Your task to perform on an android device: allow cookies in the chrome app Image 0: 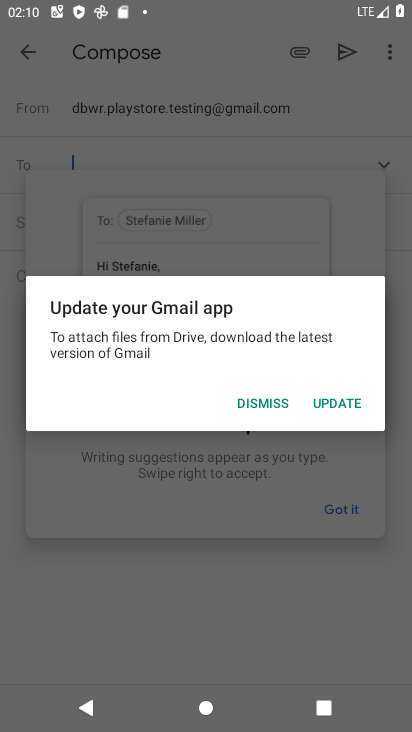
Step 0: press home button
Your task to perform on an android device: allow cookies in the chrome app Image 1: 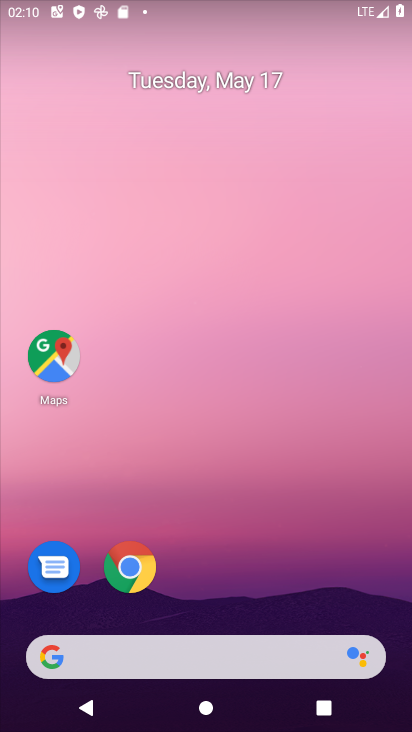
Step 1: click (129, 569)
Your task to perform on an android device: allow cookies in the chrome app Image 2: 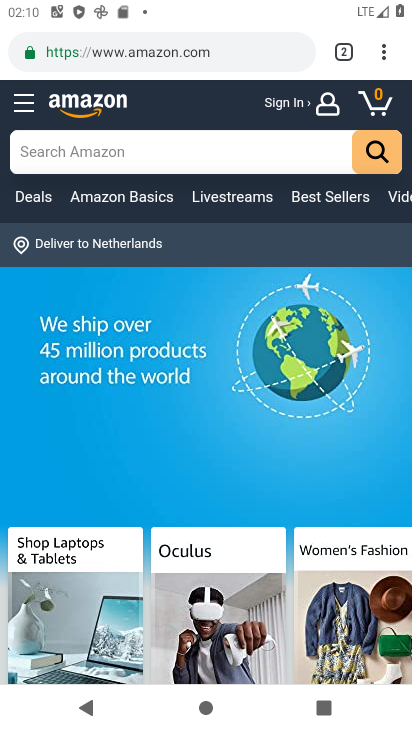
Step 2: click (385, 56)
Your task to perform on an android device: allow cookies in the chrome app Image 3: 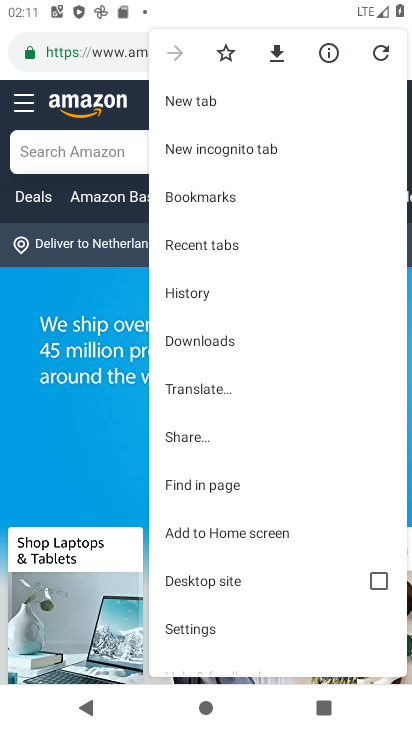
Step 3: click (200, 634)
Your task to perform on an android device: allow cookies in the chrome app Image 4: 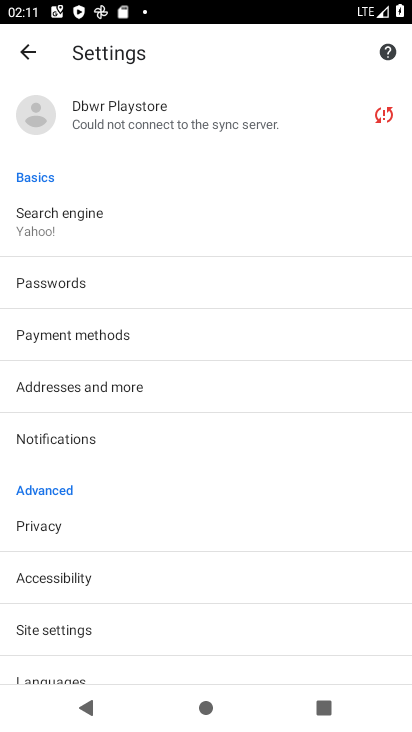
Step 4: click (65, 622)
Your task to perform on an android device: allow cookies in the chrome app Image 5: 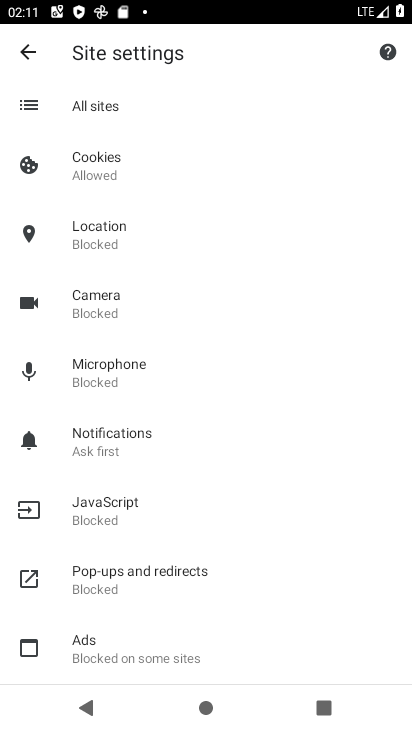
Step 5: click (91, 160)
Your task to perform on an android device: allow cookies in the chrome app Image 6: 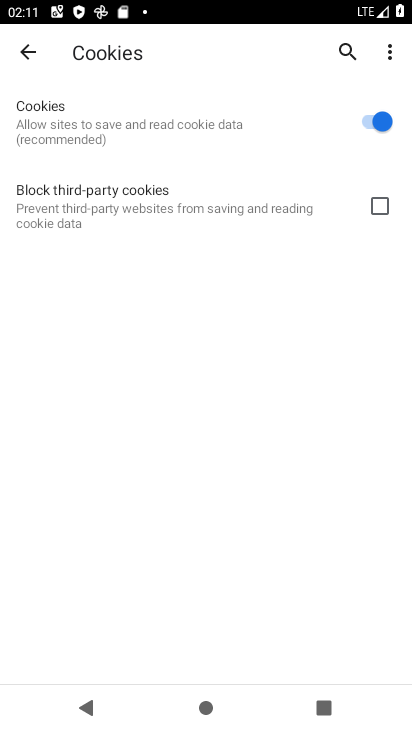
Step 6: task complete